Your task to perform on an android device: turn on improve location accuracy Image 0: 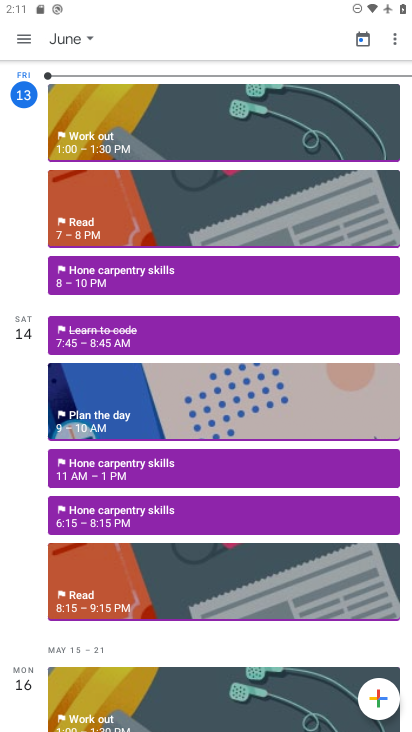
Step 0: press home button
Your task to perform on an android device: turn on improve location accuracy Image 1: 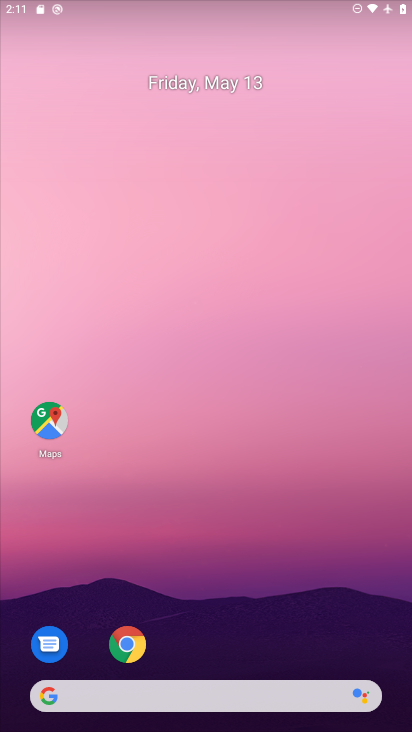
Step 1: drag from (335, 559) to (244, 64)
Your task to perform on an android device: turn on improve location accuracy Image 2: 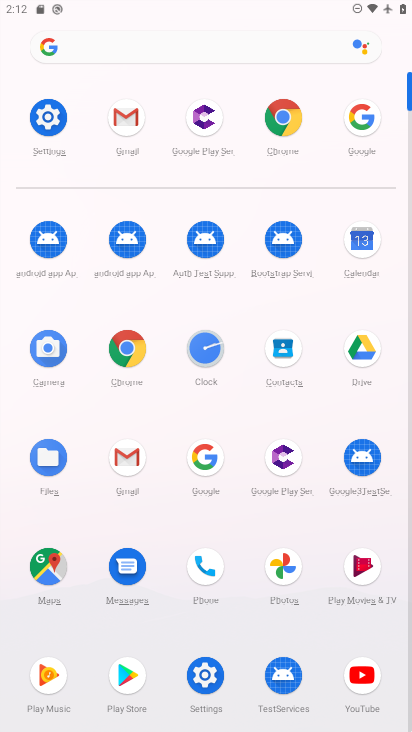
Step 2: click (215, 685)
Your task to perform on an android device: turn on improve location accuracy Image 3: 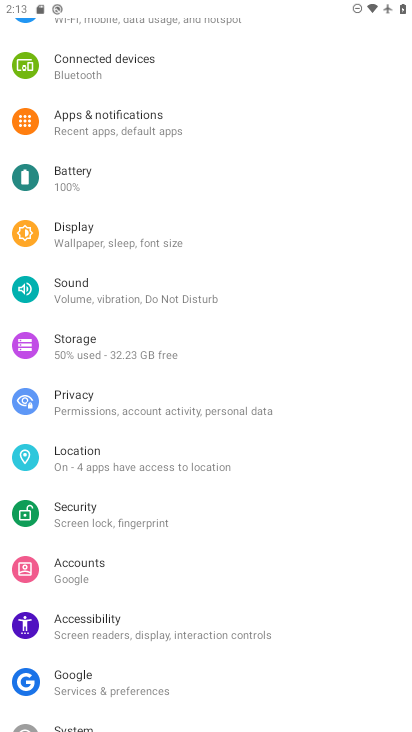
Step 3: click (171, 469)
Your task to perform on an android device: turn on improve location accuracy Image 4: 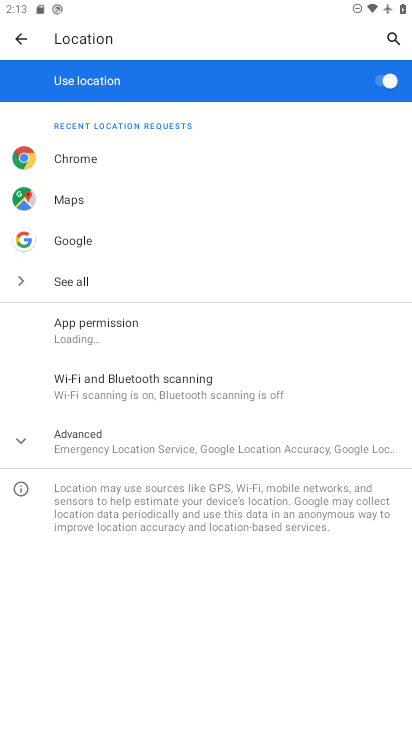
Step 4: click (145, 449)
Your task to perform on an android device: turn on improve location accuracy Image 5: 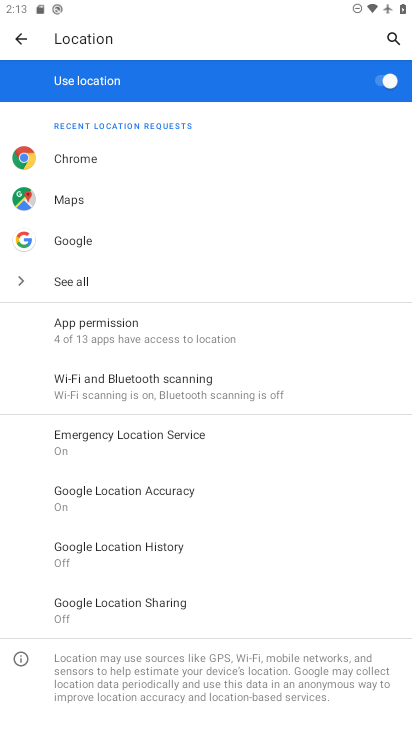
Step 5: click (154, 488)
Your task to perform on an android device: turn on improve location accuracy Image 6: 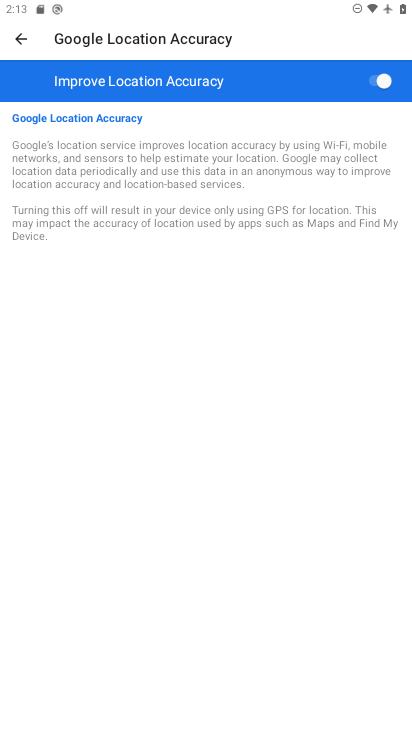
Step 6: task complete